Your task to perform on an android device: check battery use Image 0: 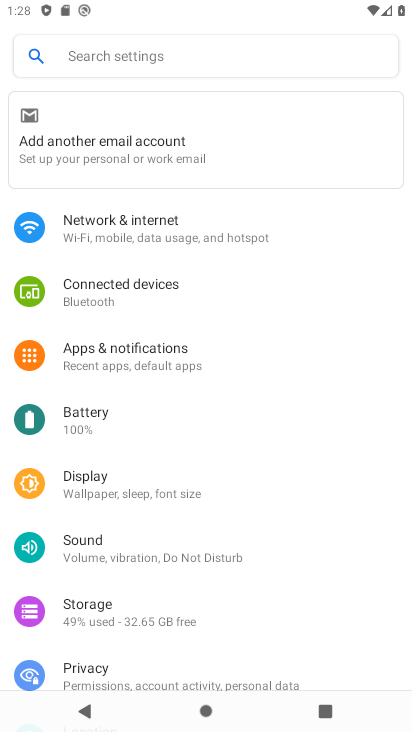
Step 0: click (173, 435)
Your task to perform on an android device: check battery use Image 1: 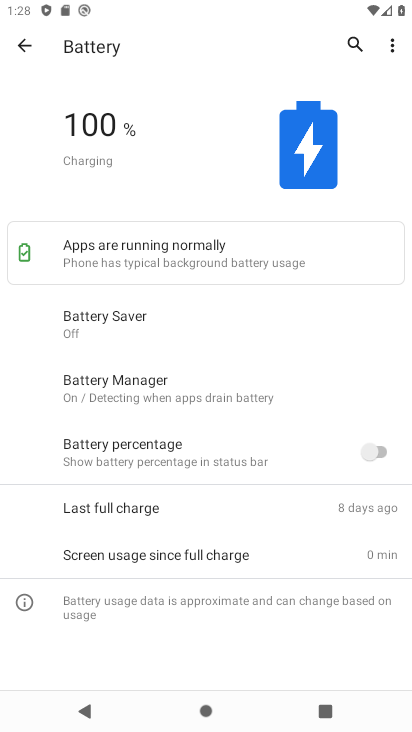
Step 1: click (390, 50)
Your task to perform on an android device: check battery use Image 2: 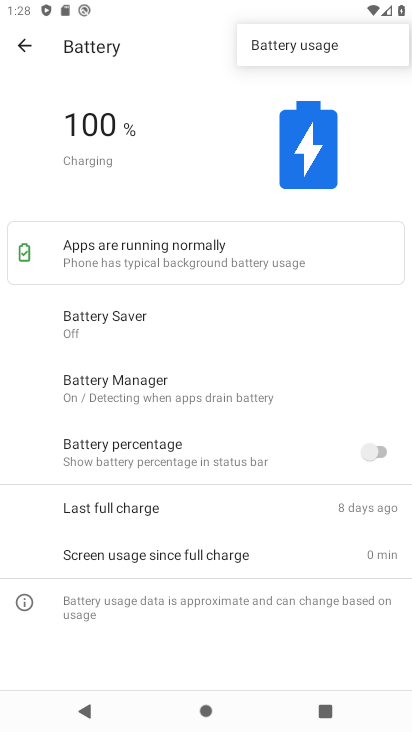
Step 2: click (350, 44)
Your task to perform on an android device: check battery use Image 3: 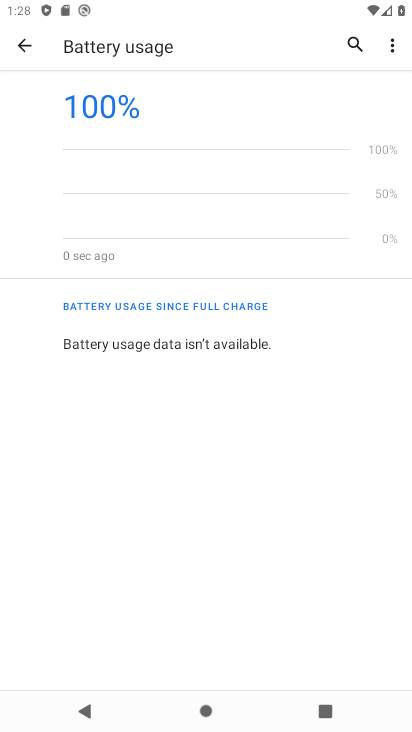
Step 3: task complete